Your task to perform on an android device: stop showing notifications on the lock screen Image 0: 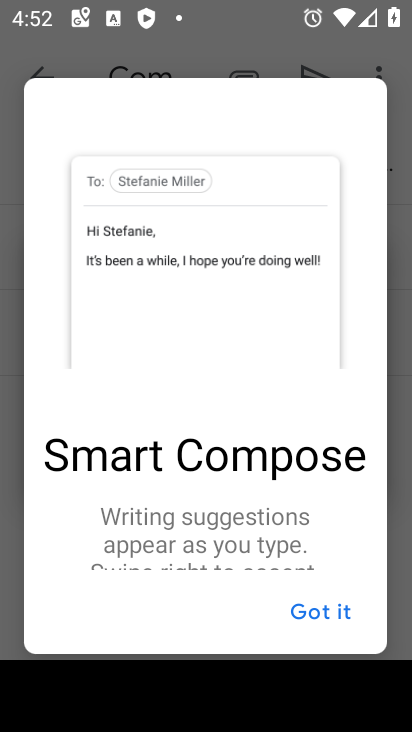
Step 0: press home button
Your task to perform on an android device: stop showing notifications on the lock screen Image 1: 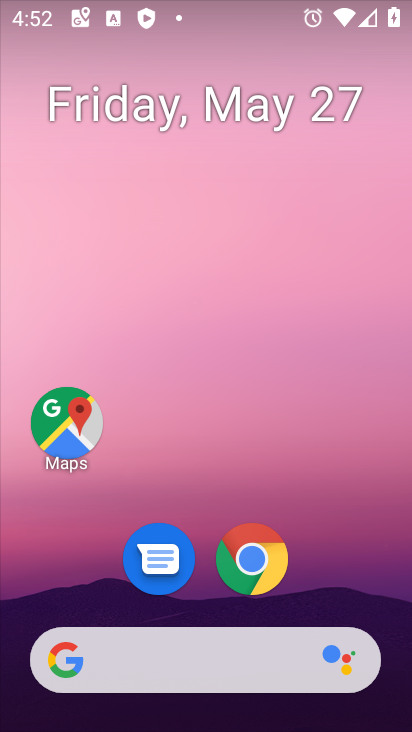
Step 1: drag from (308, 636) to (319, 7)
Your task to perform on an android device: stop showing notifications on the lock screen Image 2: 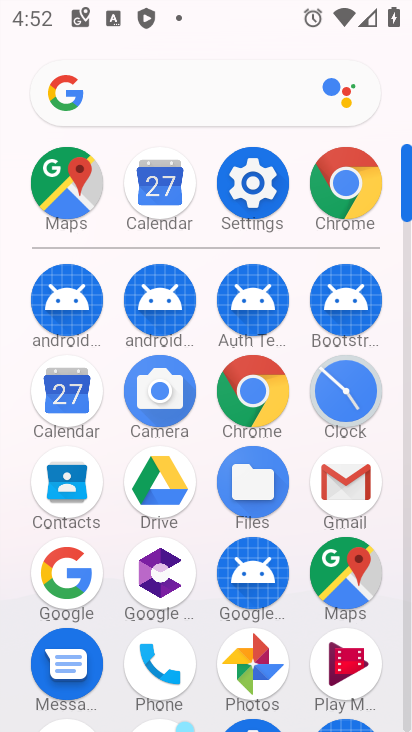
Step 2: click (240, 178)
Your task to perform on an android device: stop showing notifications on the lock screen Image 3: 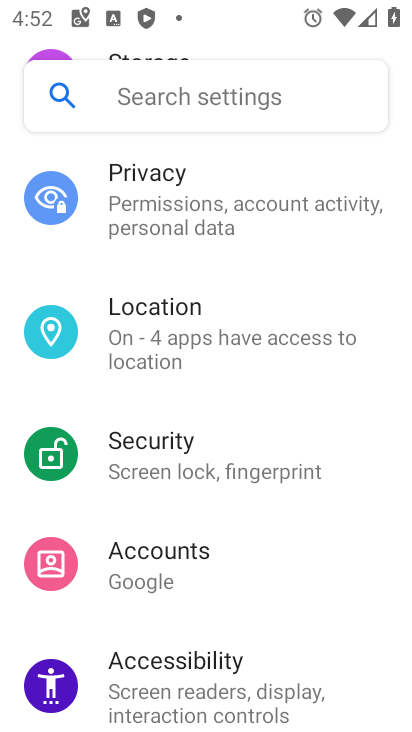
Step 3: drag from (232, 152) to (285, 722)
Your task to perform on an android device: stop showing notifications on the lock screen Image 4: 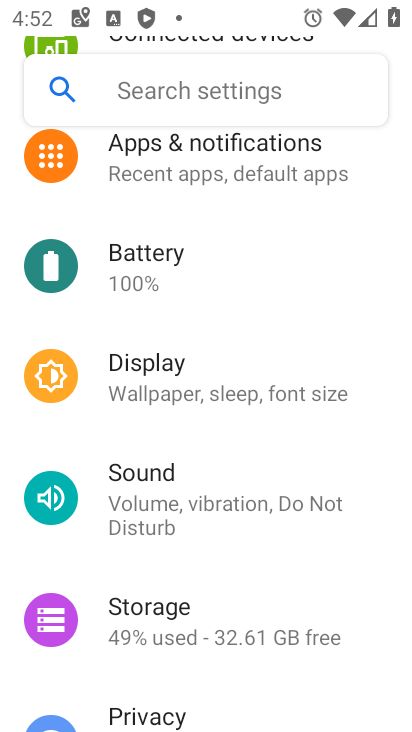
Step 4: drag from (237, 247) to (255, 506)
Your task to perform on an android device: stop showing notifications on the lock screen Image 5: 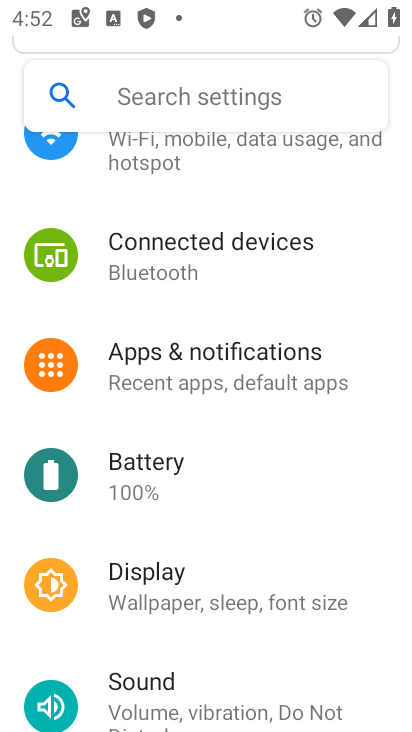
Step 5: click (260, 369)
Your task to perform on an android device: stop showing notifications on the lock screen Image 6: 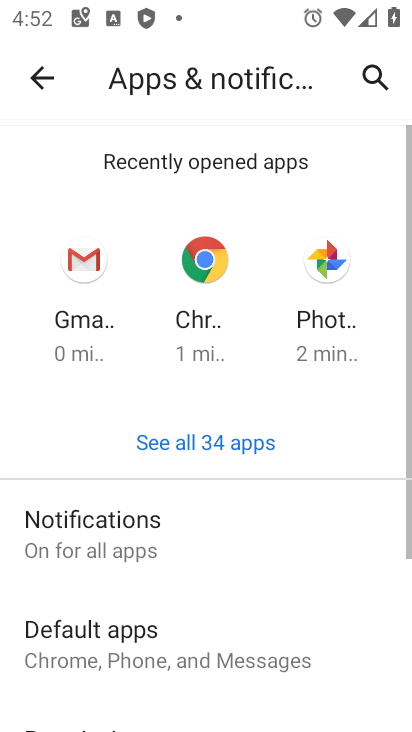
Step 6: drag from (232, 375) to (243, 205)
Your task to perform on an android device: stop showing notifications on the lock screen Image 7: 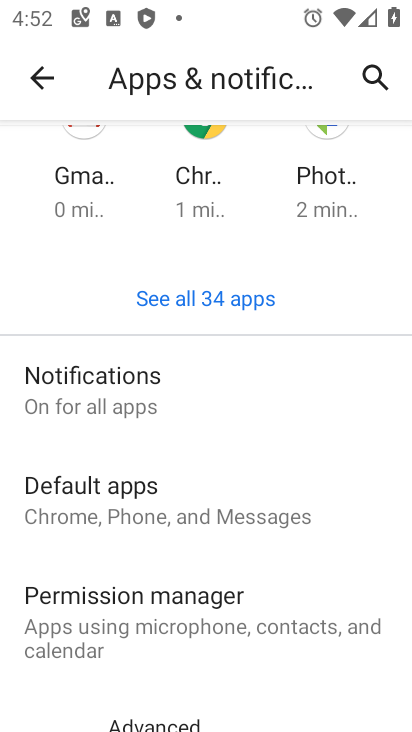
Step 7: click (176, 390)
Your task to perform on an android device: stop showing notifications on the lock screen Image 8: 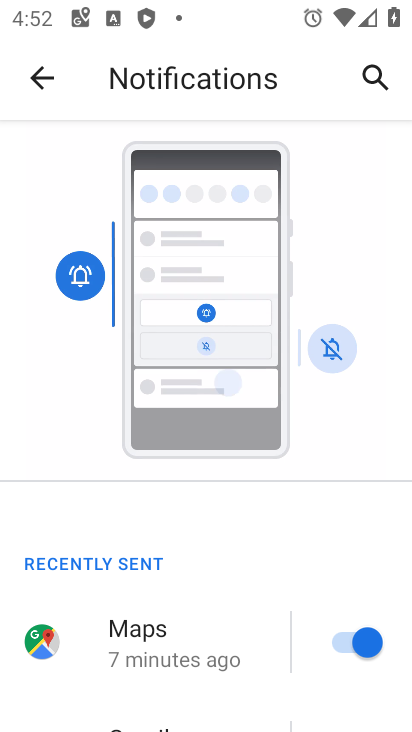
Step 8: drag from (202, 701) to (307, 43)
Your task to perform on an android device: stop showing notifications on the lock screen Image 9: 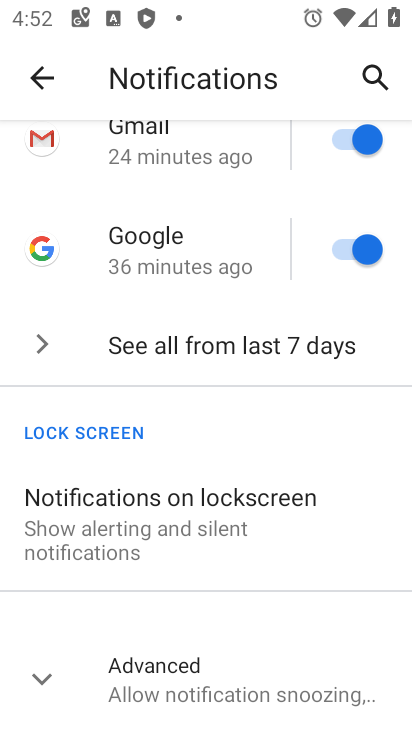
Step 9: click (190, 511)
Your task to perform on an android device: stop showing notifications on the lock screen Image 10: 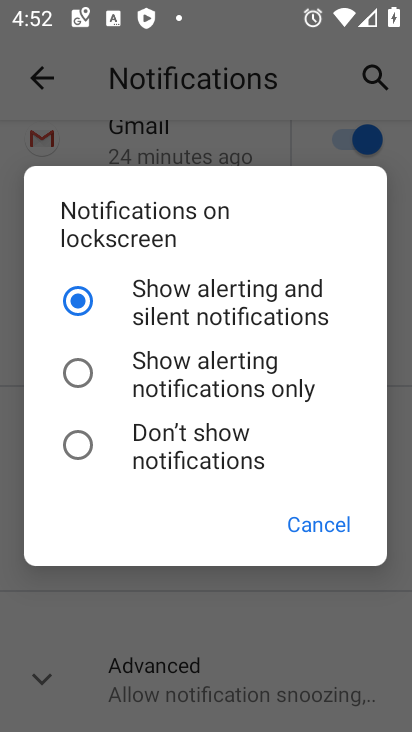
Step 10: click (191, 459)
Your task to perform on an android device: stop showing notifications on the lock screen Image 11: 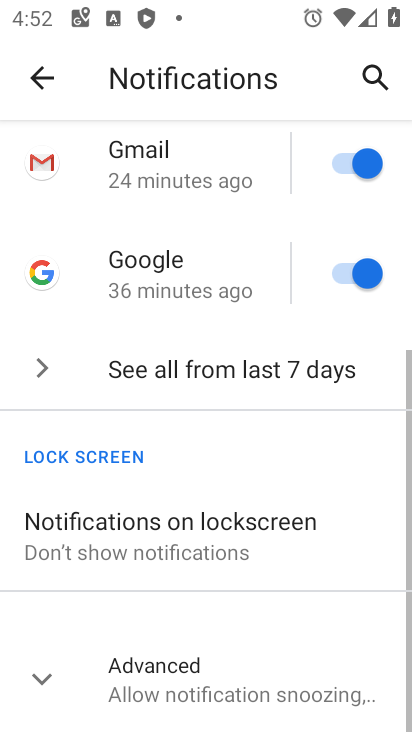
Step 11: task complete